Your task to perform on an android device: Open calendar and show me the second week of next month Image 0: 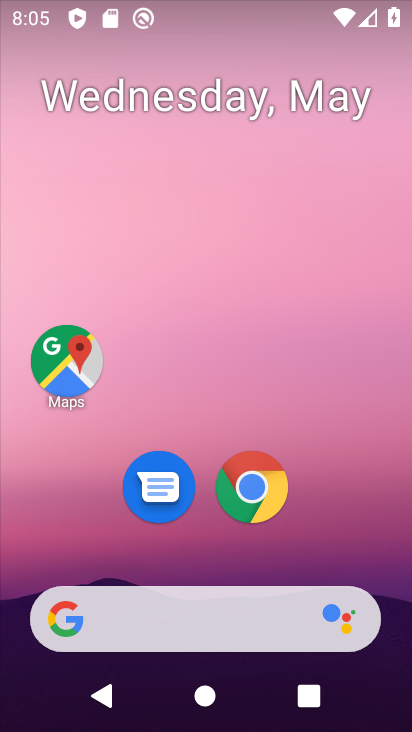
Step 0: drag from (202, 547) to (210, 183)
Your task to perform on an android device: Open calendar and show me the second week of next month Image 1: 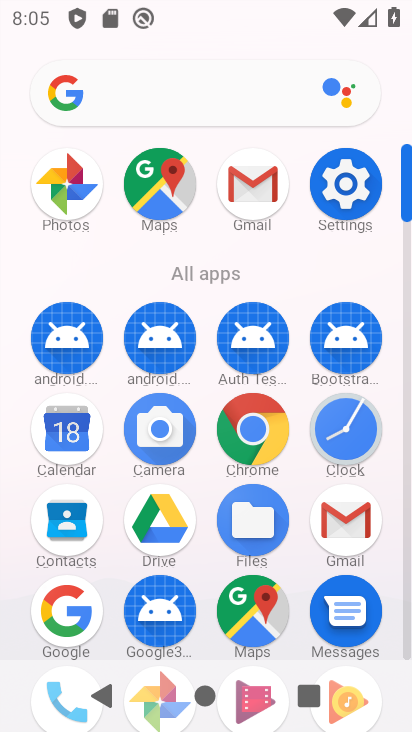
Step 1: click (71, 416)
Your task to perform on an android device: Open calendar and show me the second week of next month Image 2: 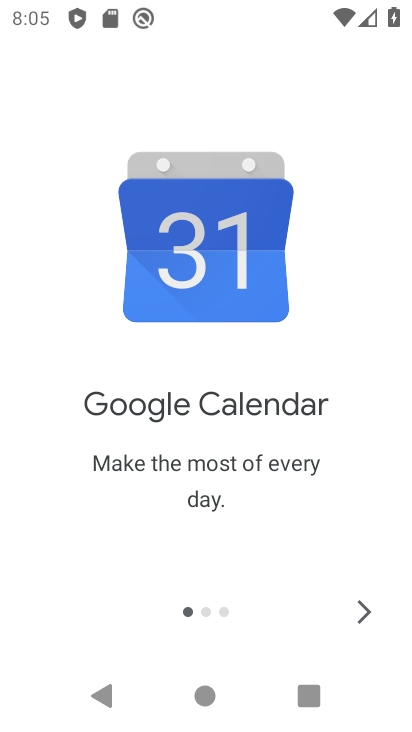
Step 2: click (359, 624)
Your task to perform on an android device: Open calendar and show me the second week of next month Image 3: 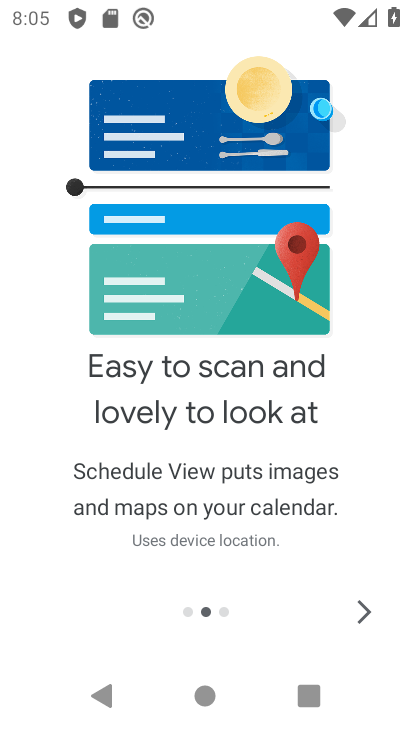
Step 3: click (359, 624)
Your task to perform on an android device: Open calendar and show me the second week of next month Image 4: 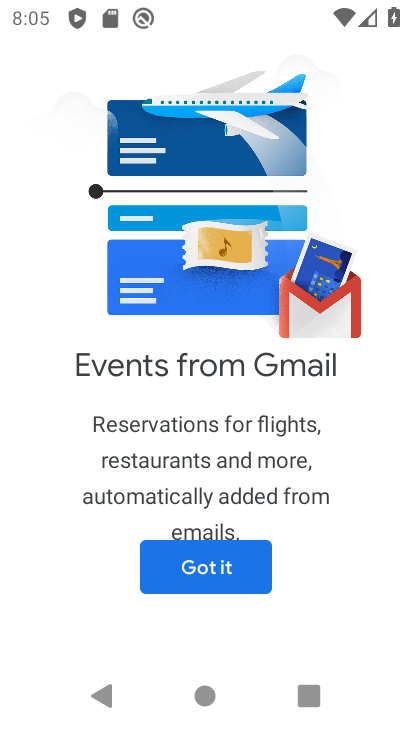
Step 4: click (359, 624)
Your task to perform on an android device: Open calendar and show me the second week of next month Image 5: 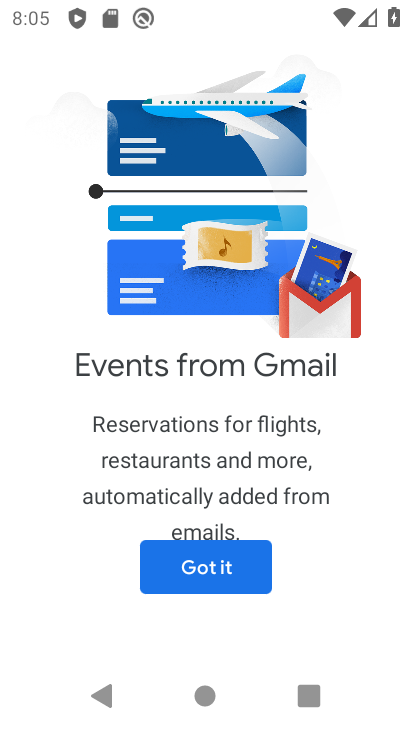
Step 5: click (172, 526)
Your task to perform on an android device: Open calendar and show me the second week of next month Image 6: 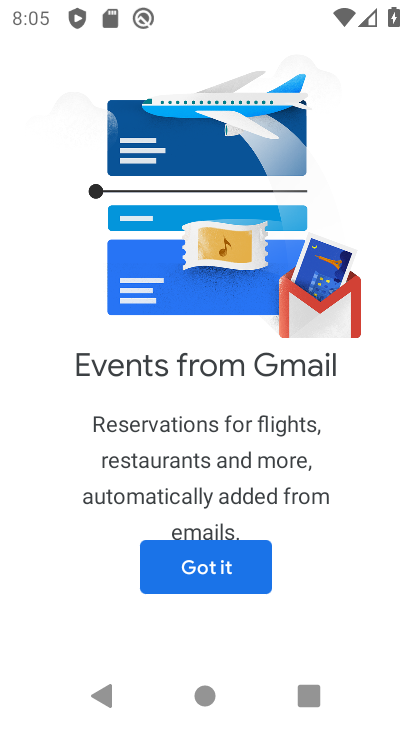
Step 6: click (185, 548)
Your task to perform on an android device: Open calendar and show me the second week of next month Image 7: 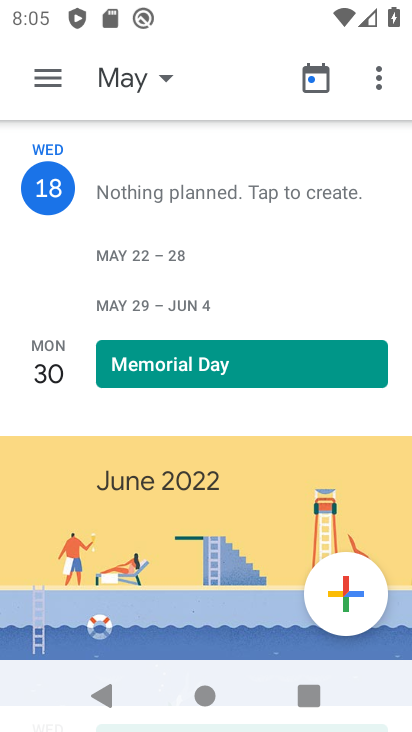
Step 7: click (150, 80)
Your task to perform on an android device: Open calendar and show me the second week of next month Image 8: 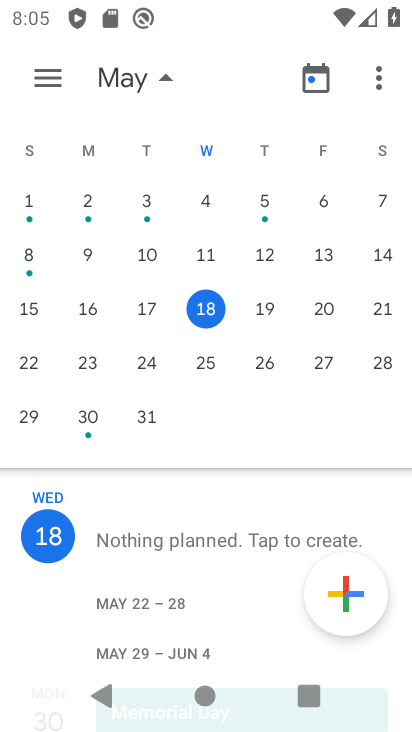
Step 8: drag from (346, 277) to (21, 268)
Your task to perform on an android device: Open calendar and show me the second week of next month Image 9: 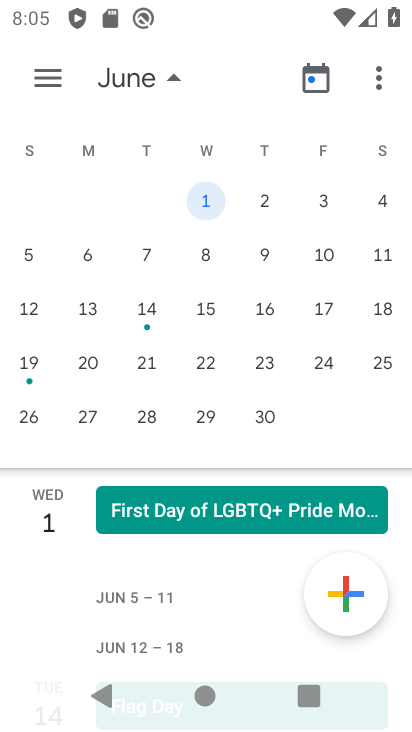
Step 9: click (28, 249)
Your task to perform on an android device: Open calendar and show me the second week of next month Image 10: 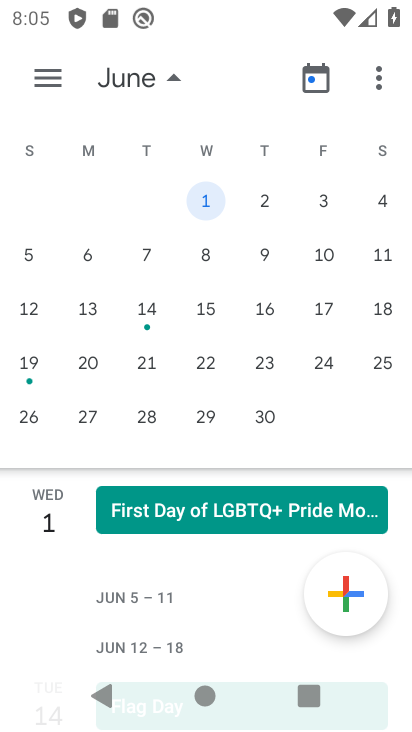
Step 10: click (35, 253)
Your task to perform on an android device: Open calendar and show me the second week of next month Image 11: 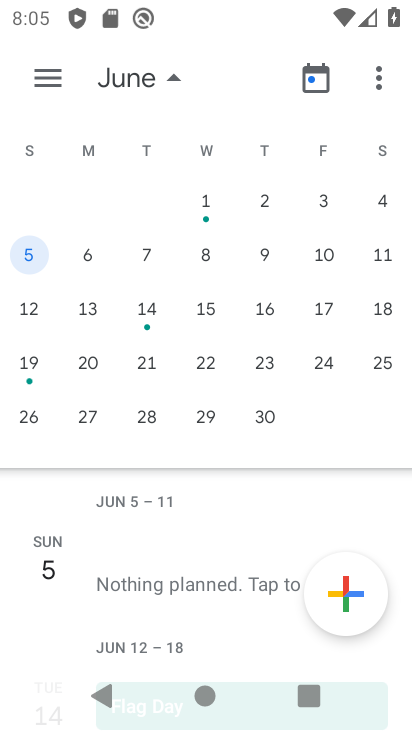
Step 11: task complete